Your task to perform on an android device: see creations saved in the google photos Image 0: 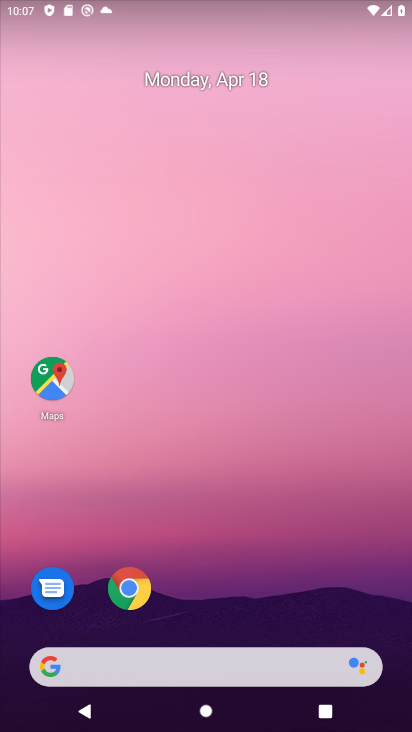
Step 0: drag from (337, 571) to (177, 1)
Your task to perform on an android device: see creations saved in the google photos Image 1: 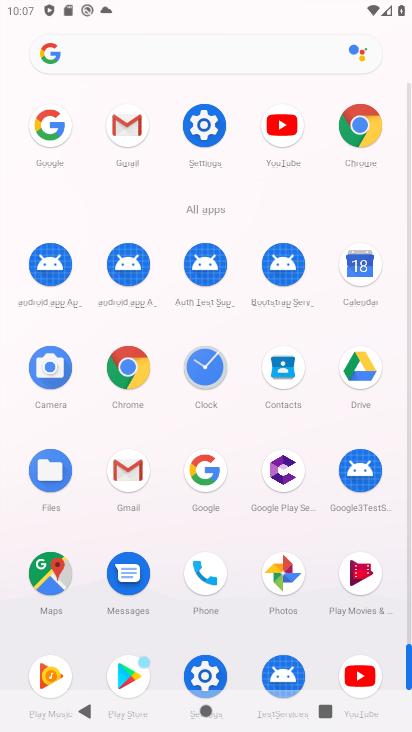
Step 1: drag from (4, 555) to (0, 252)
Your task to perform on an android device: see creations saved in the google photos Image 2: 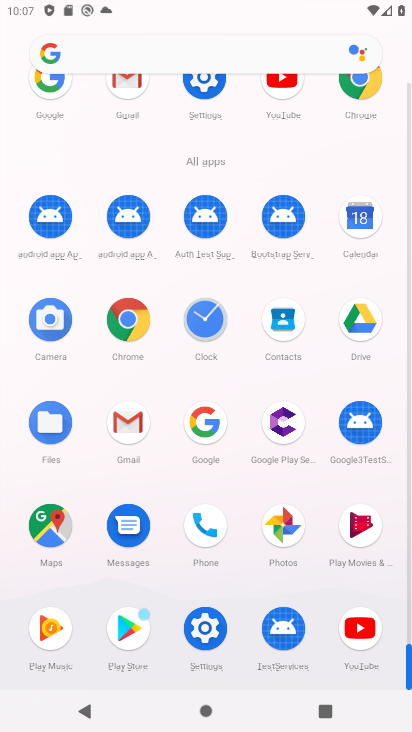
Step 2: click (282, 497)
Your task to perform on an android device: see creations saved in the google photos Image 3: 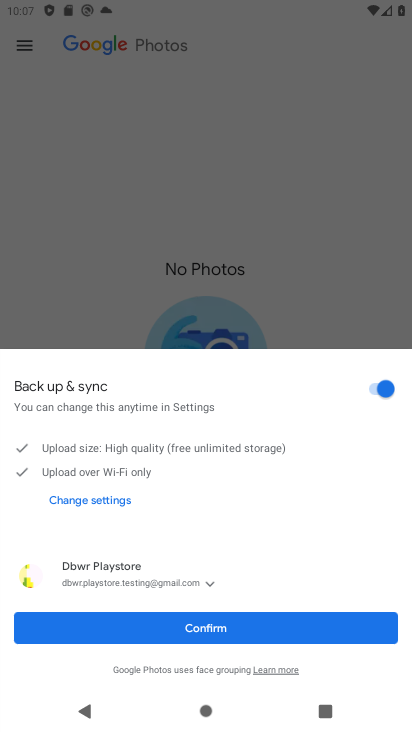
Step 3: click (252, 628)
Your task to perform on an android device: see creations saved in the google photos Image 4: 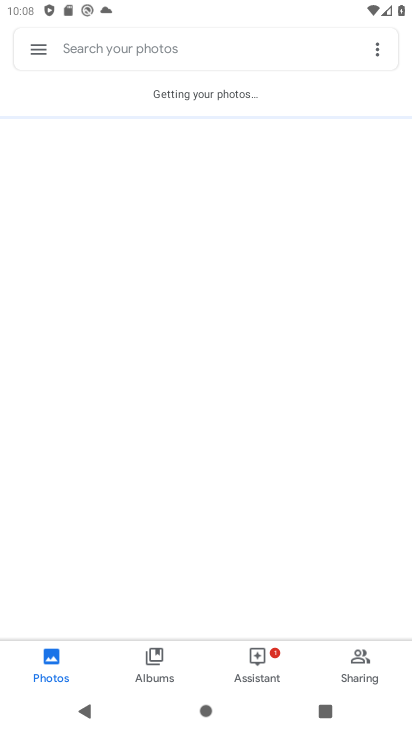
Step 4: task complete